Your task to perform on an android device: Open the map Image 0: 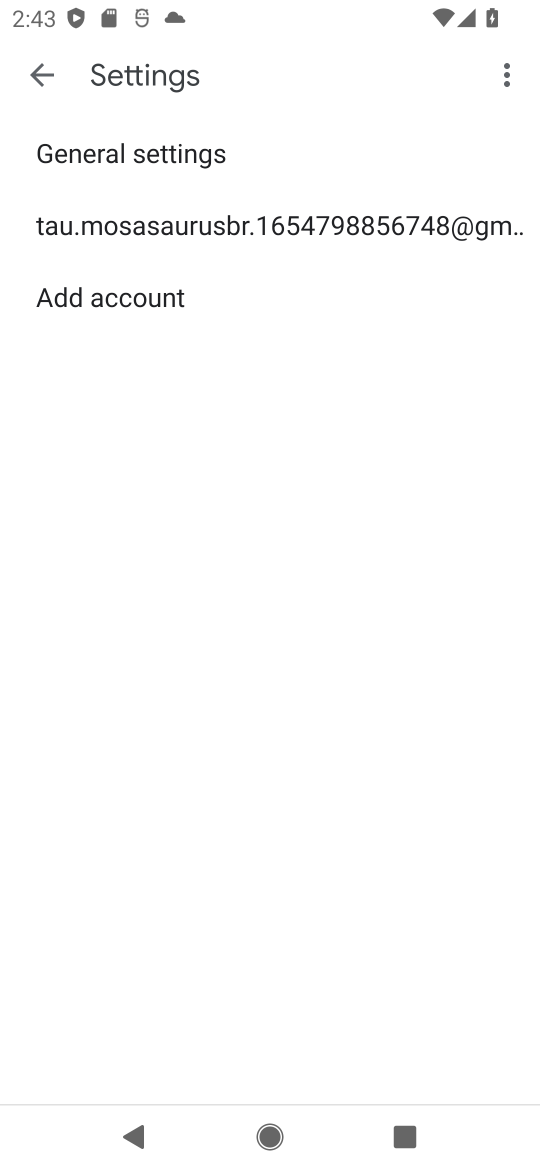
Step 0: press home button
Your task to perform on an android device: Open the map Image 1: 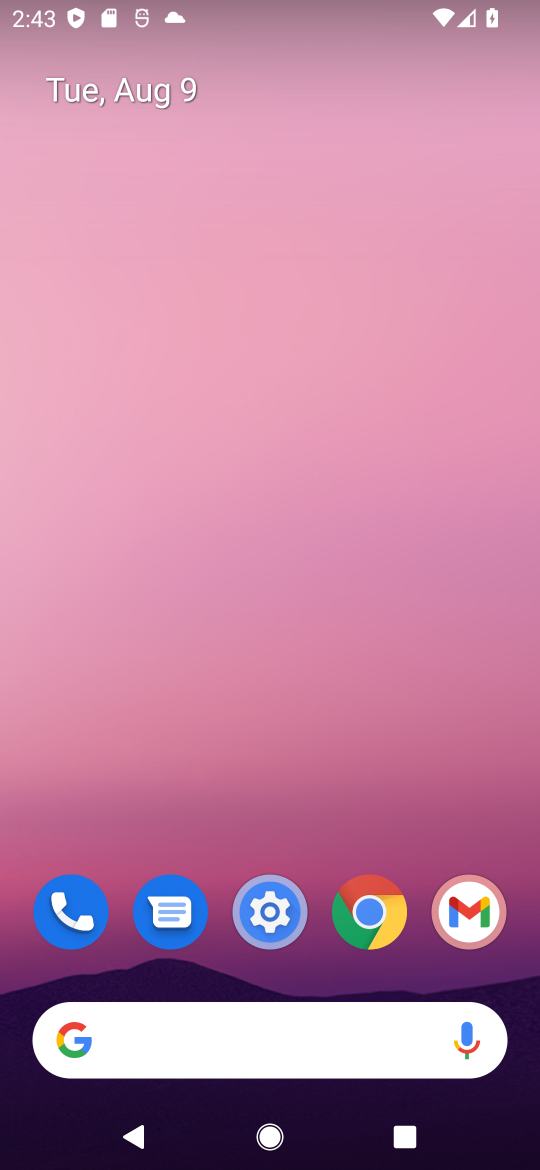
Step 1: drag from (295, 730) to (274, 70)
Your task to perform on an android device: Open the map Image 2: 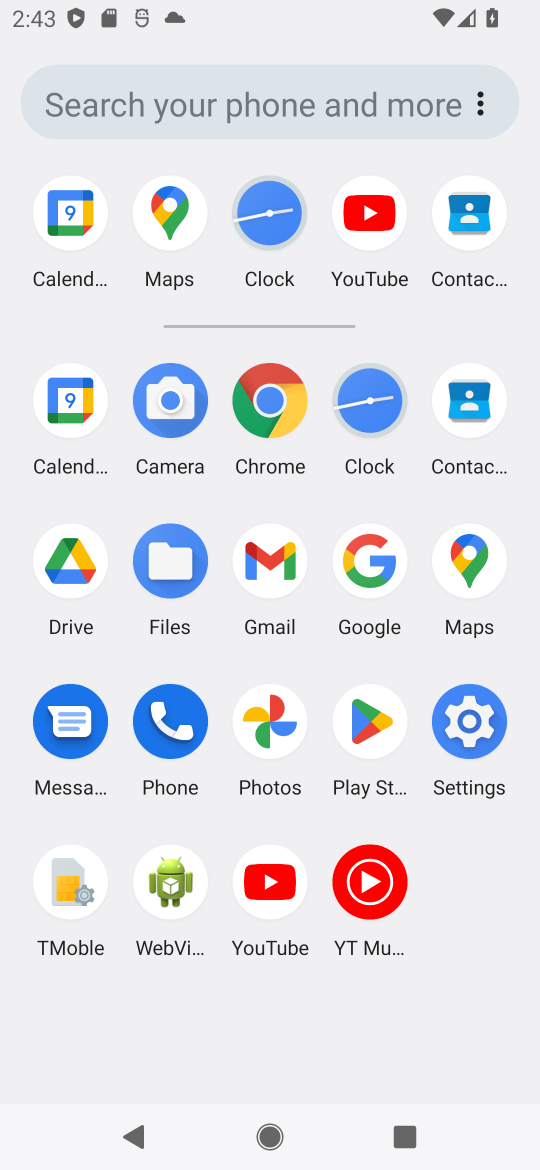
Step 2: click (463, 552)
Your task to perform on an android device: Open the map Image 3: 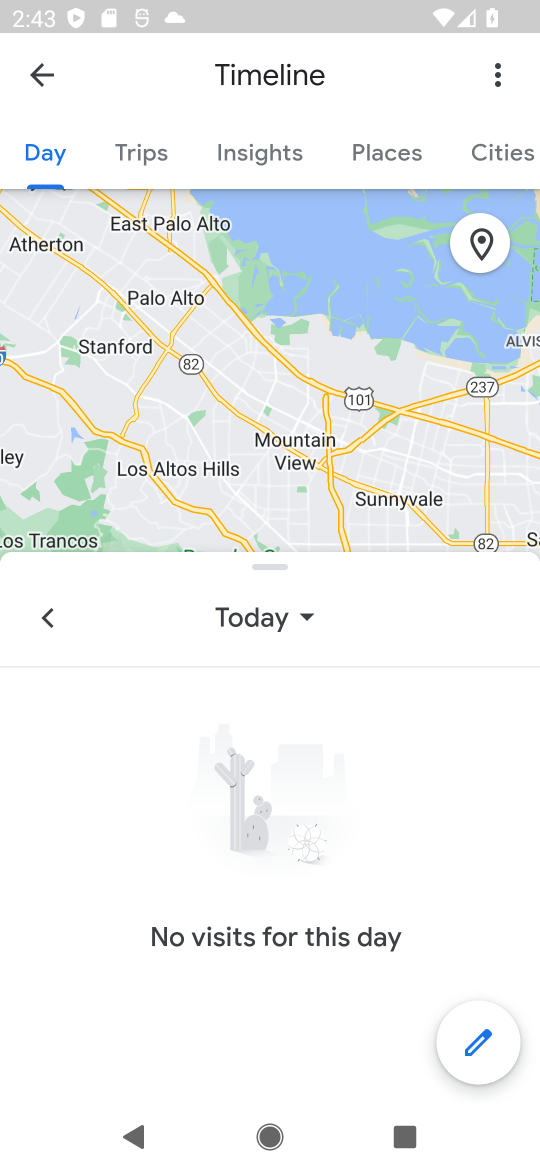
Step 3: click (36, 52)
Your task to perform on an android device: Open the map Image 4: 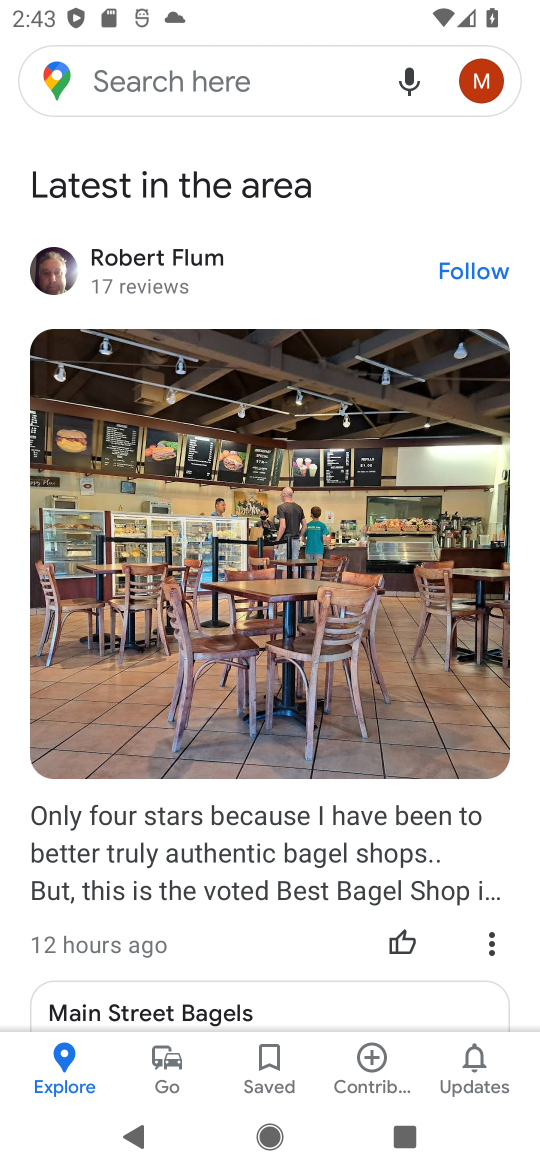
Step 4: task complete